Your task to perform on an android device: Is it going to rain this weekend? Image 0: 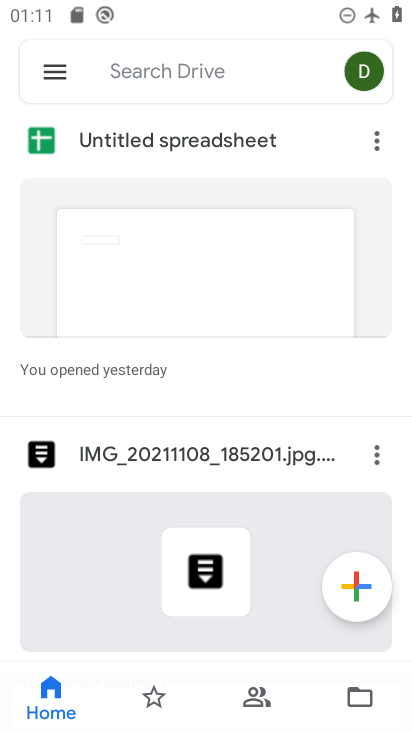
Step 0: press home button
Your task to perform on an android device: Is it going to rain this weekend? Image 1: 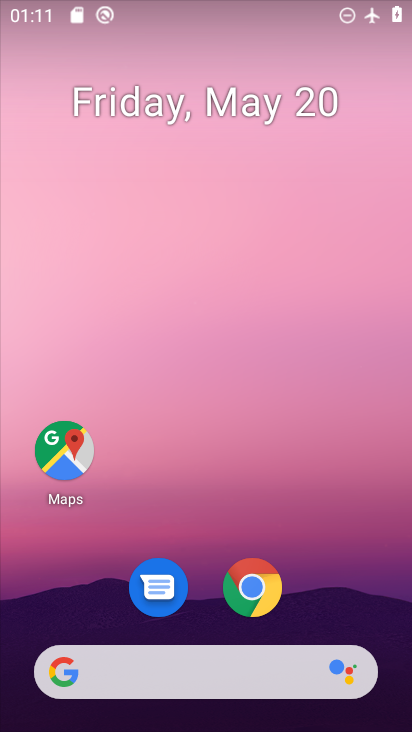
Step 1: click (244, 674)
Your task to perform on an android device: Is it going to rain this weekend? Image 2: 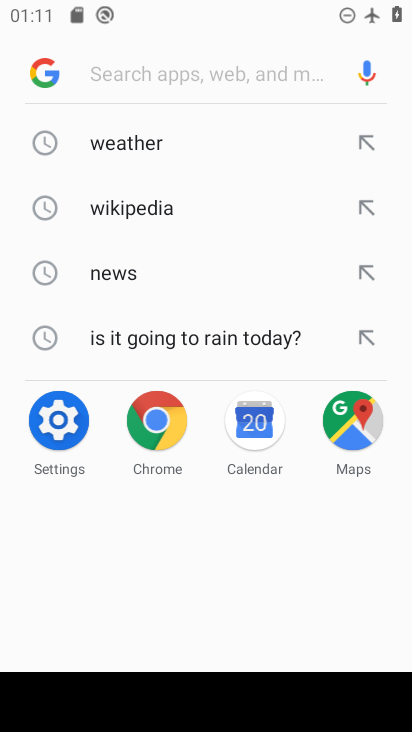
Step 2: click (177, 149)
Your task to perform on an android device: Is it going to rain this weekend? Image 3: 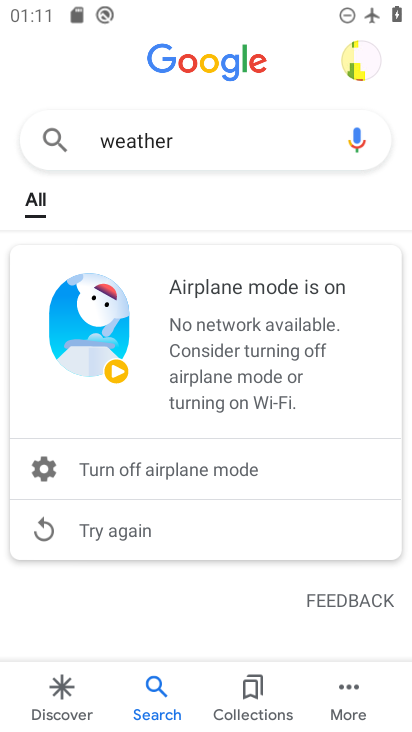
Step 3: task complete